Your task to perform on an android device: uninstall "Google Translate" Image 0: 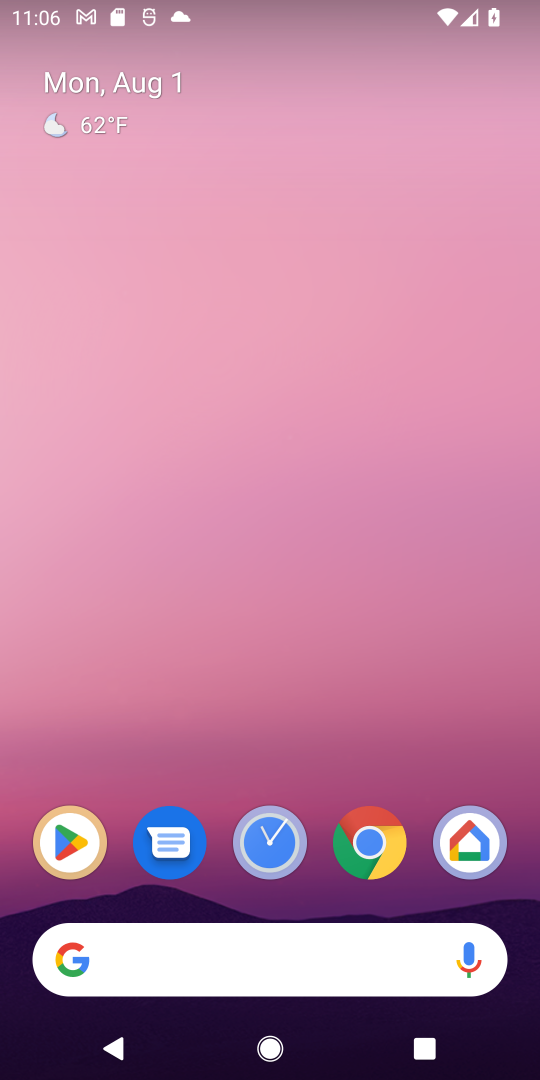
Step 0: click (85, 853)
Your task to perform on an android device: uninstall "Google Translate" Image 1: 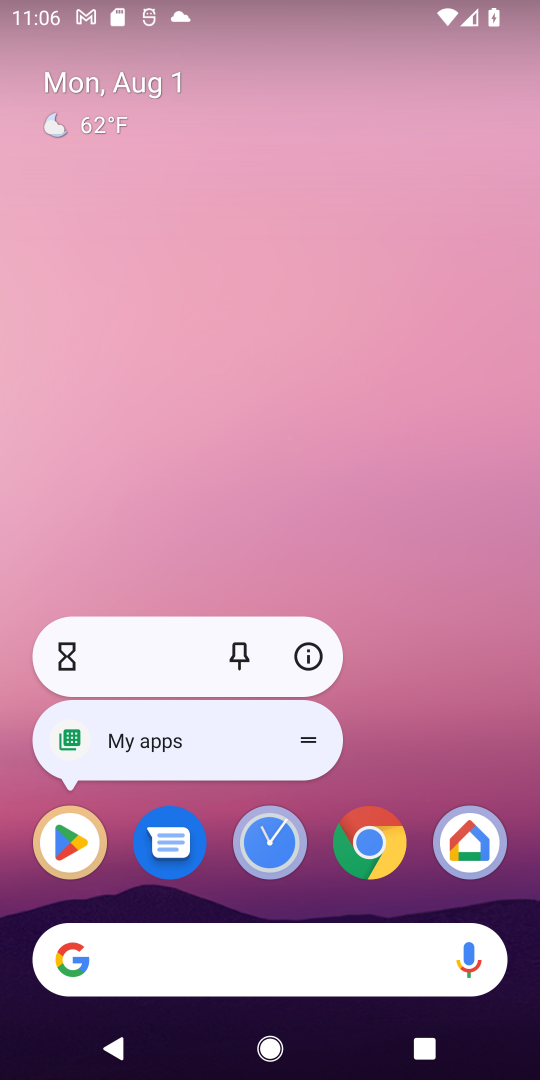
Step 1: click (63, 845)
Your task to perform on an android device: uninstall "Google Translate" Image 2: 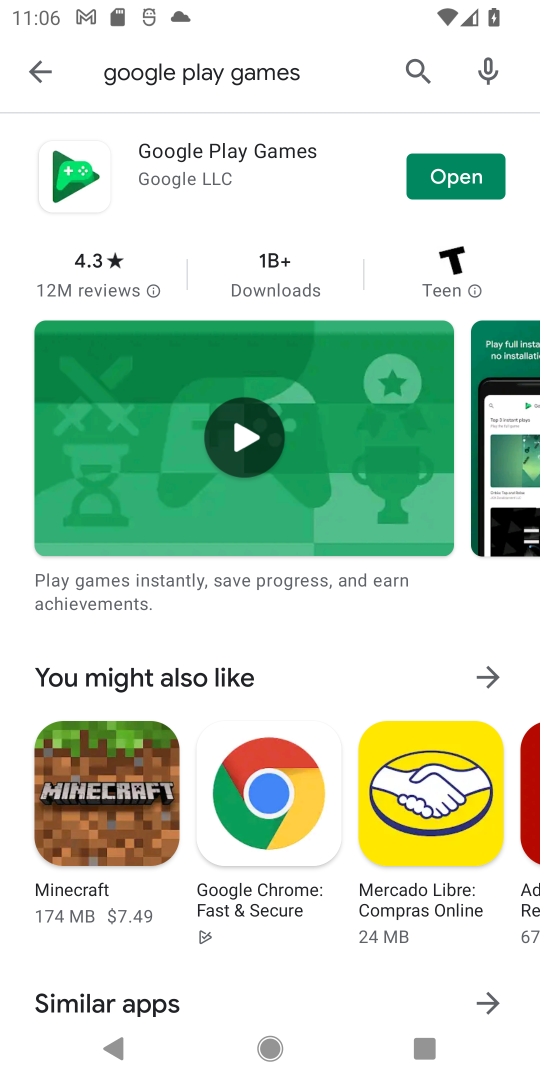
Step 2: click (210, 76)
Your task to perform on an android device: uninstall "Google Translate" Image 3: 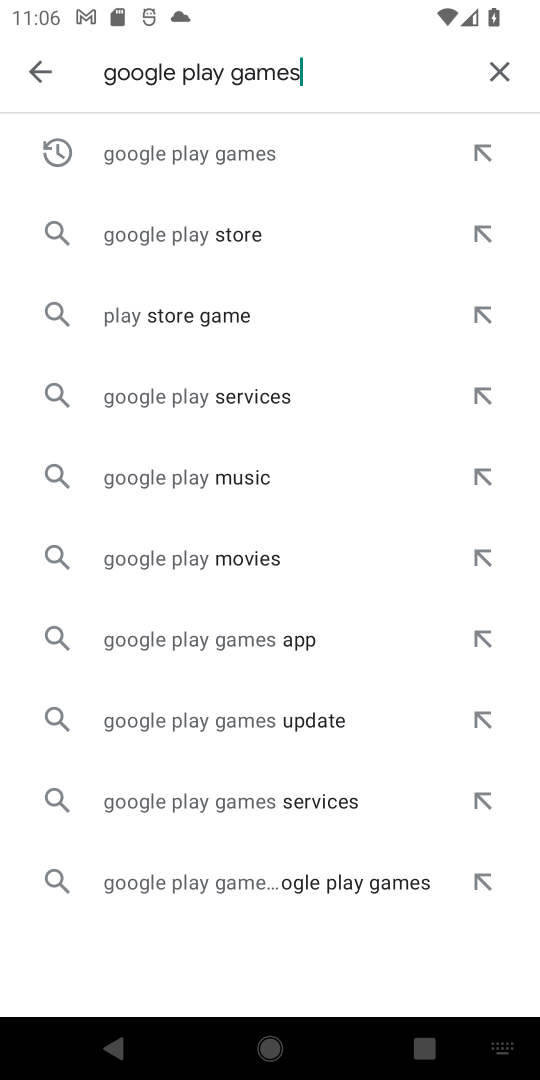
Step 3: click (489, 65)
Your task to perform on an android device: uninstall "Google Translate" Image 4: 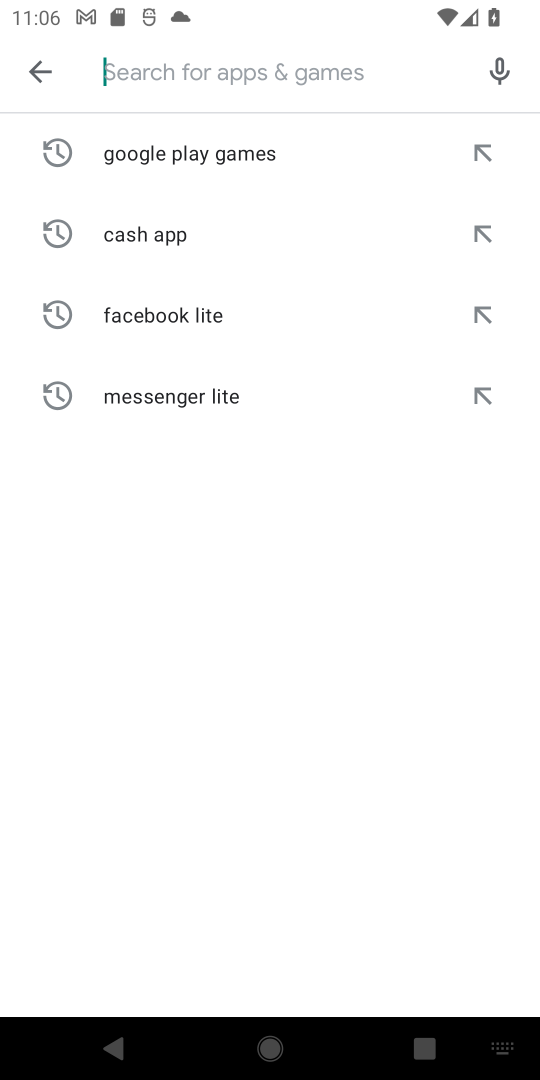
Step 4: click (199, 80)
Your task to perform on an android device: uninstall "Google Translate" Image 5: 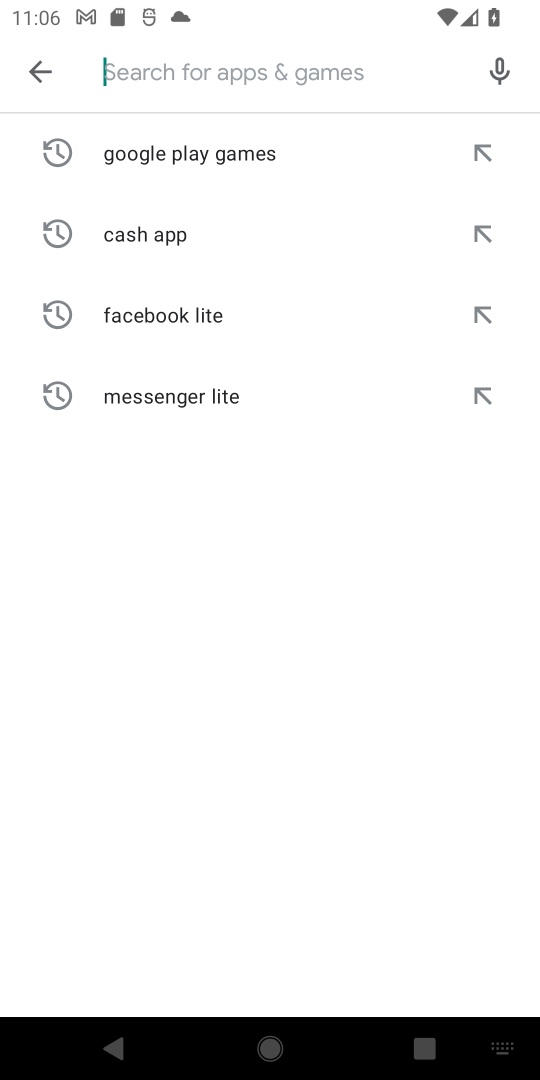
Step 5: type "Google Translate""
Your task to perform on an android device: uninstall "Google Translate" Image 6: 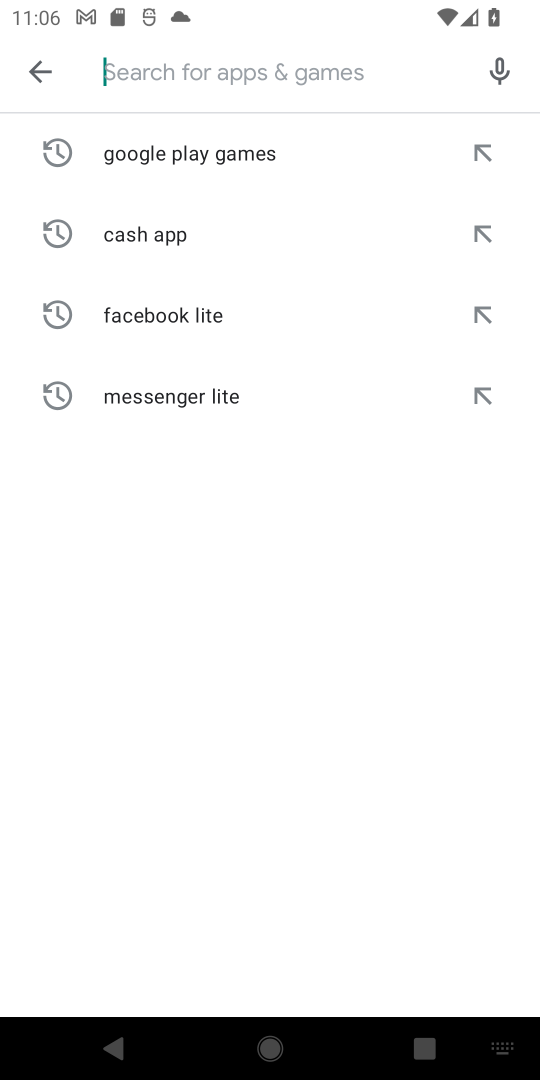
Step 6: click (216, 601)
Your task to perform on an android device: uninstall "Google Translate" Image 7: 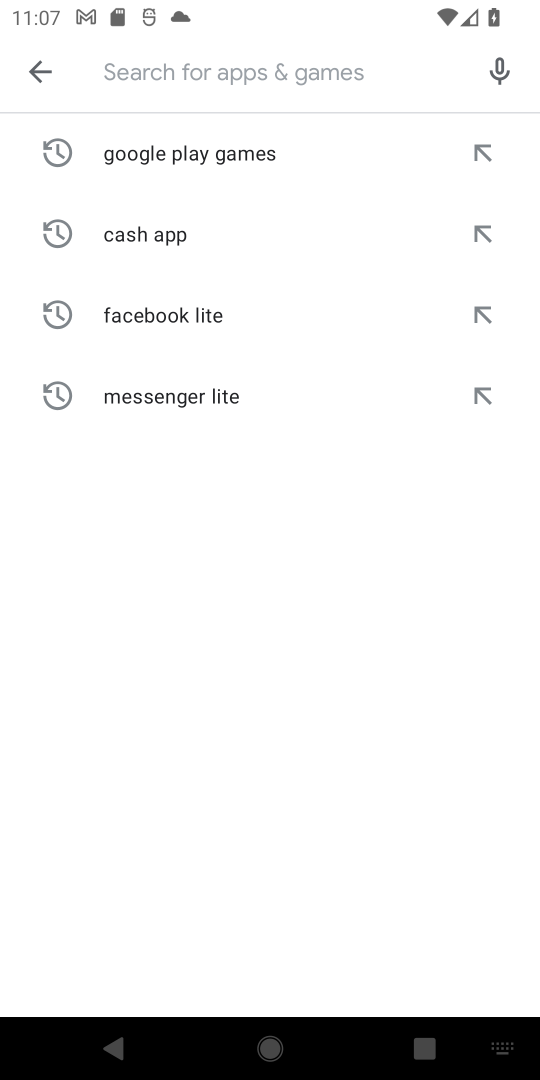
Step 7: click (233, 67)
Your task to perform on an android device: uninstall "Google Translate" Image 8: 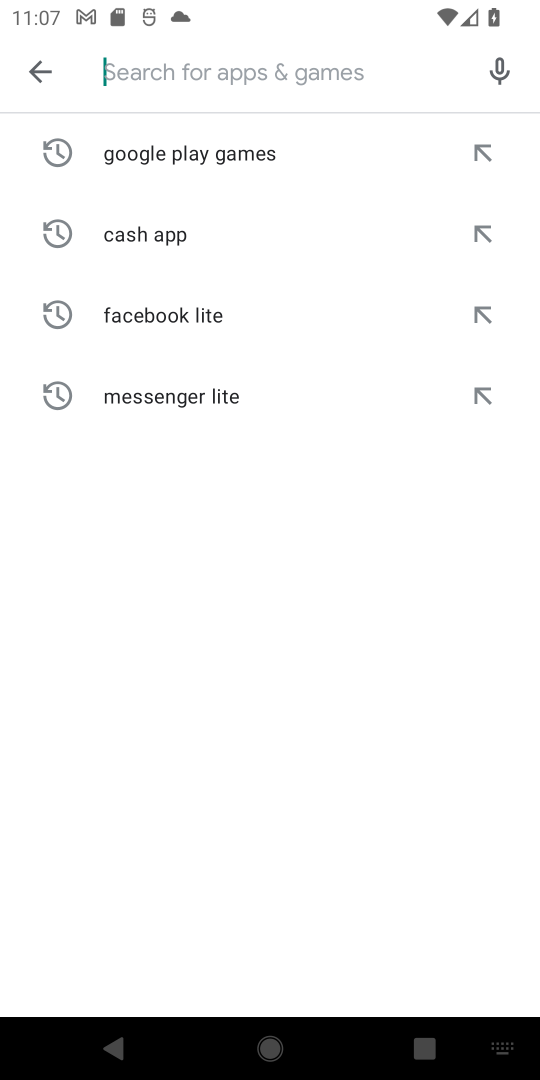
Step 8: click (169, 73)
Your task to perform on an android device: uninstall "Google Translate" Image 9: 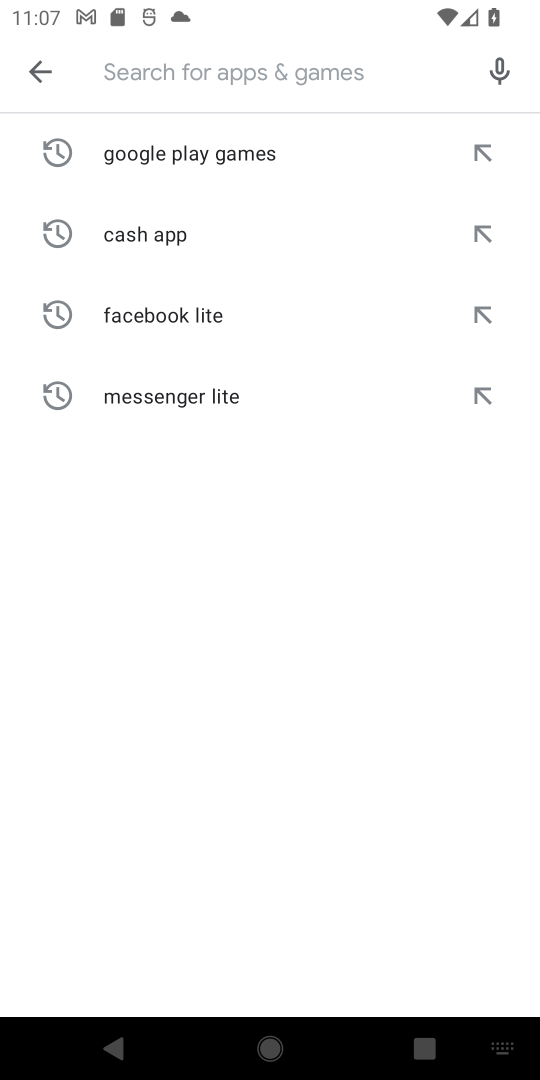
Step 9: type "Google Translate"
Your task to perform on an android device: uninstall "Google Translate" Image 10: 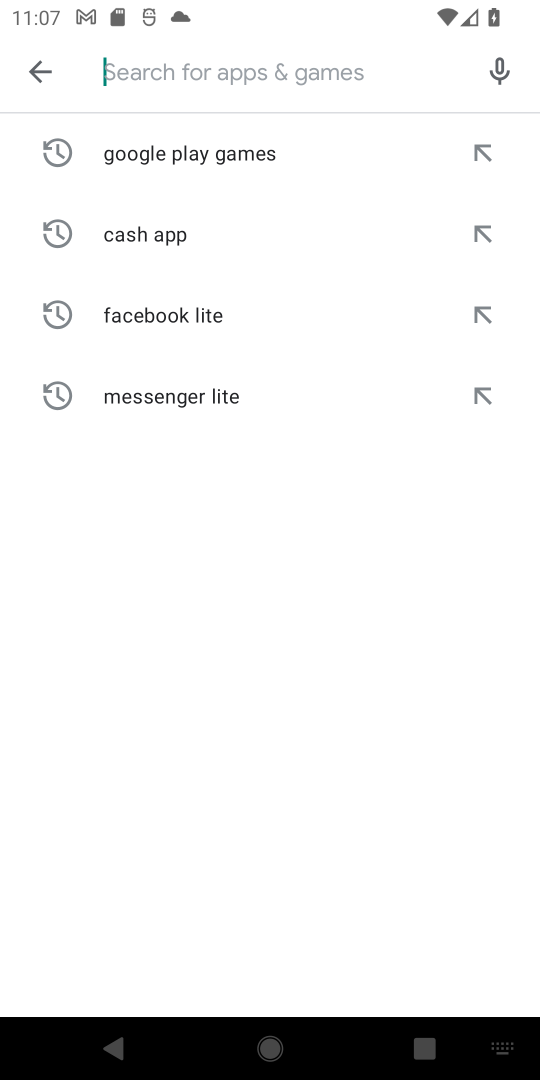
Step 10: click (276, 586)
Your task to perform on an android device: uninstall "Google Translate" Image 11: 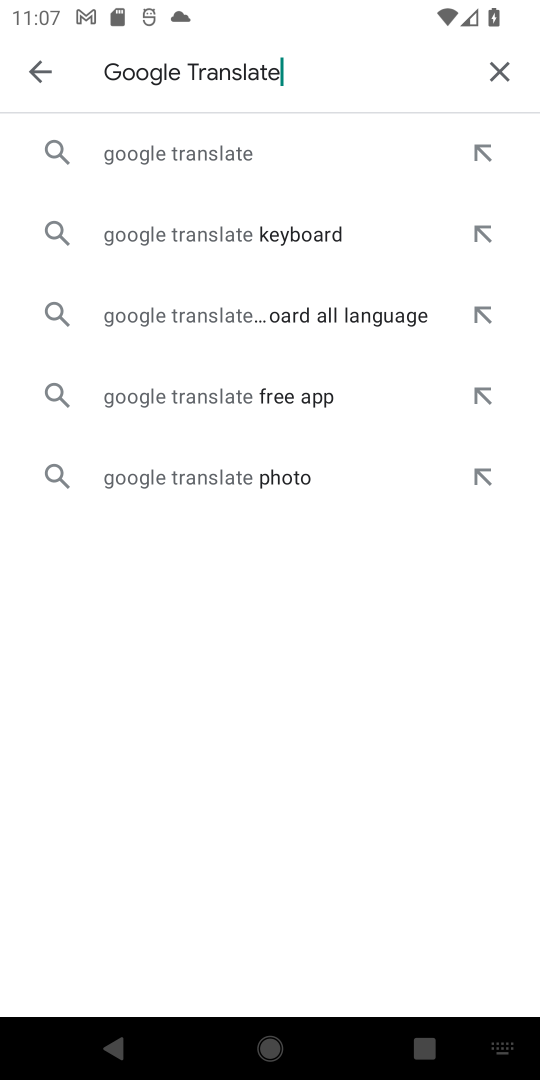
Step 11: click (209, 145)
Your task to perform on an android device: uninstall "Google Translate" Image 12: 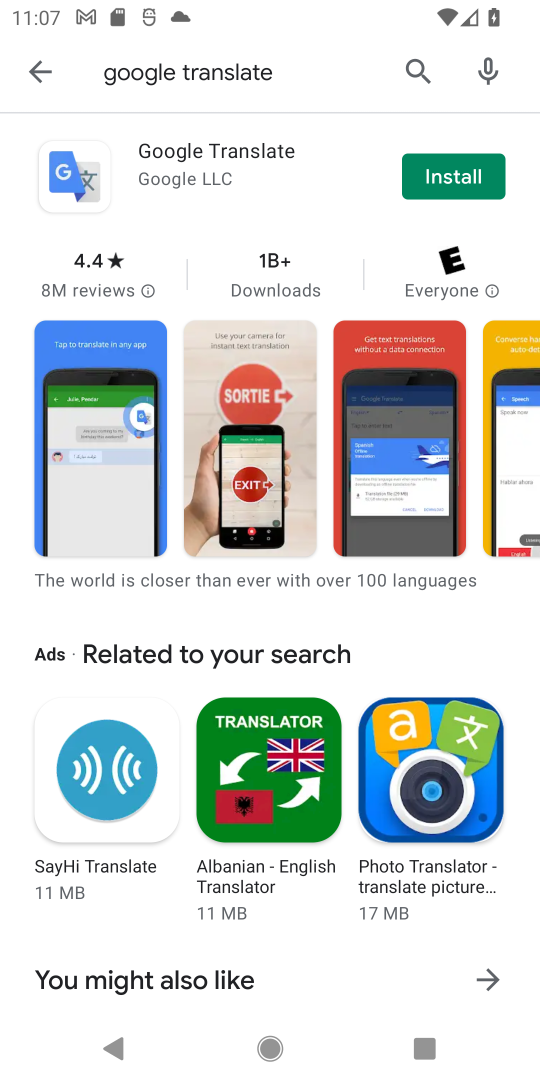
Step 12: task complete